Your task to perform on an android device: Show me productivity apps on the Play Store Image 0: 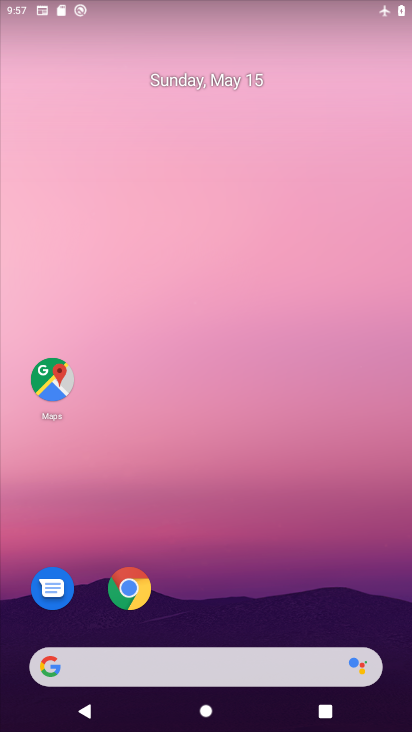
Step 0: drag from (238, 536) to (289, 29)
Your task to perform on an android device: Show me productivity apps on the Play Store Image 1: 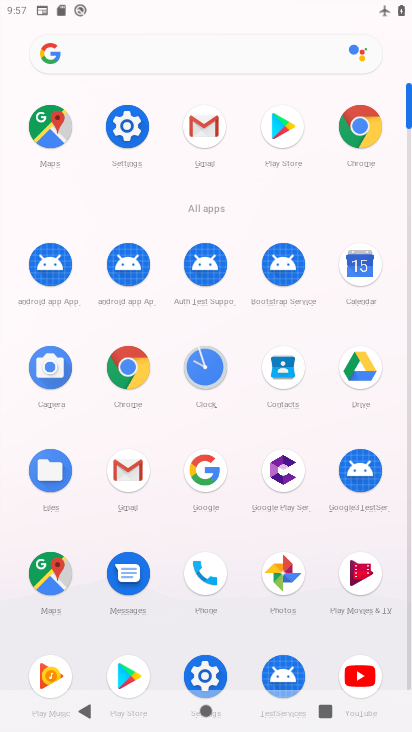
Step 1: click (125, 668)
Your task to perform on an android device: Show me productivity apps on the Play Store Image 2: 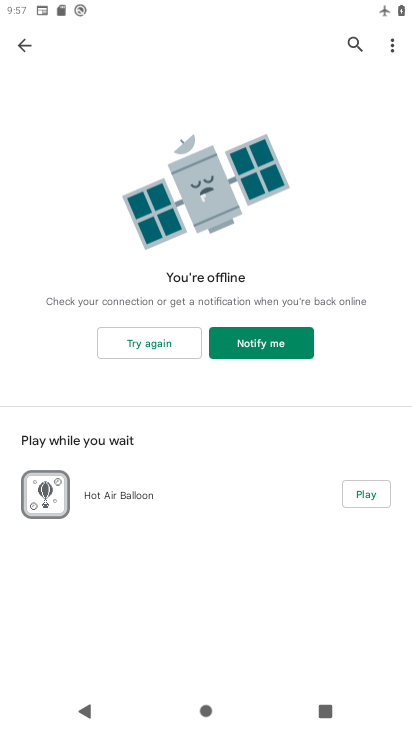
Step 2: click (157, 336)
Your task to perform on an android device: Show me productivity apps on the Play Store Image 3: 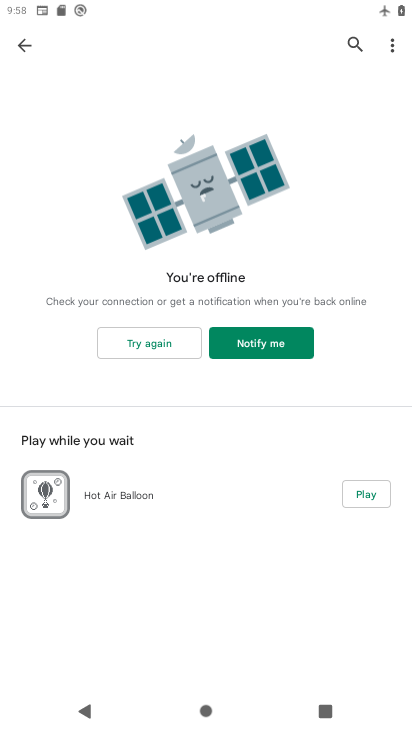
Step 3: task complete